Your task to perform on an android device: Search for Italian restaurants on Maps Image 0: 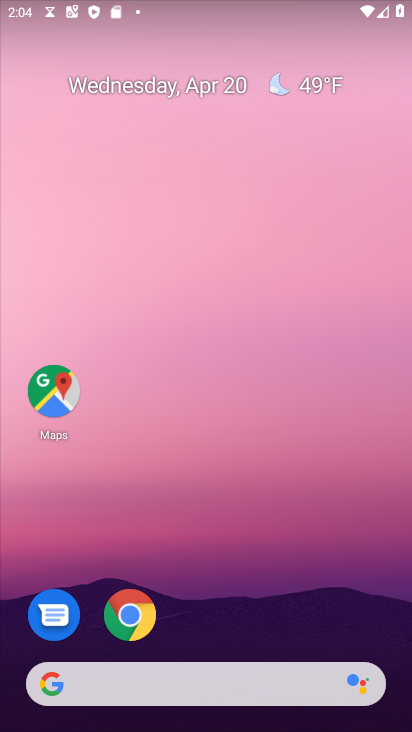
Step 0: click (70, 401)
Your task to perform on an android device: Search for Italian restaurants on Maps Image 1: 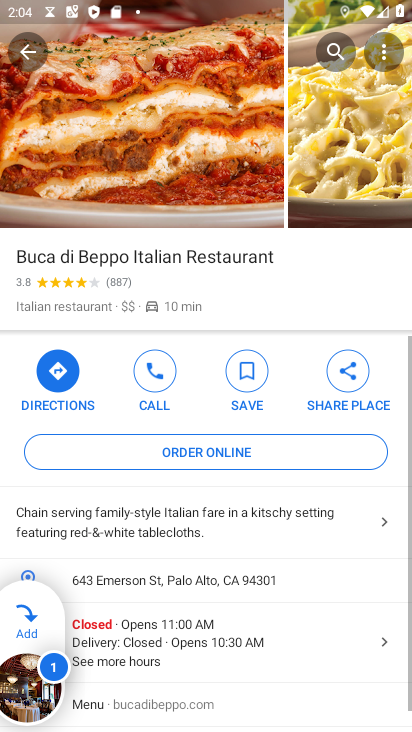
Step 1: task complete